Your task to perform on an android device: Open network settings Image 0: 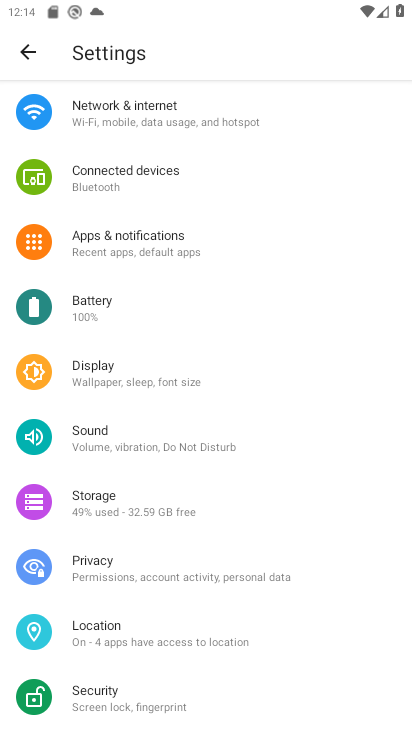
Step 0: click (145, 116)
Your task to perform on an android device: Open network settings Image 1: 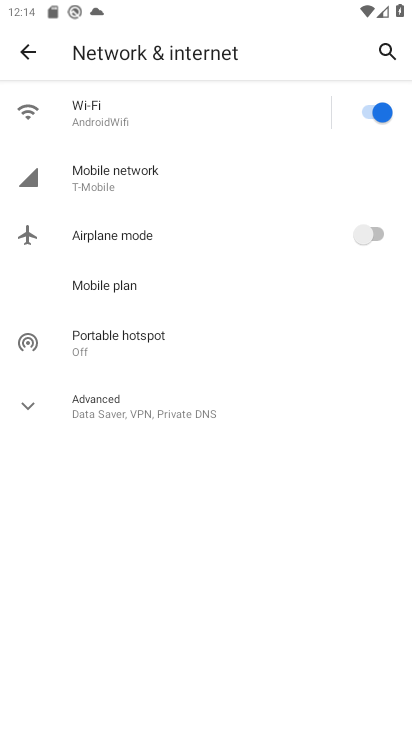
Step 1: click (72, 398)
Your task to perform on an android device: Open network settings Image 2: 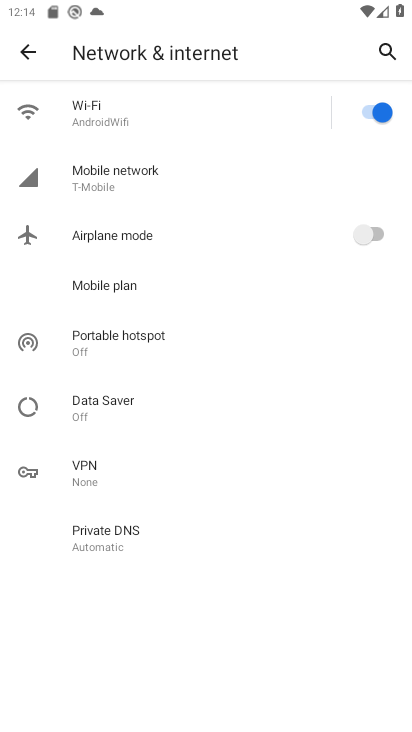
Step 2: task complete